Your task to perform on an android device: Open my contact list Image 0: 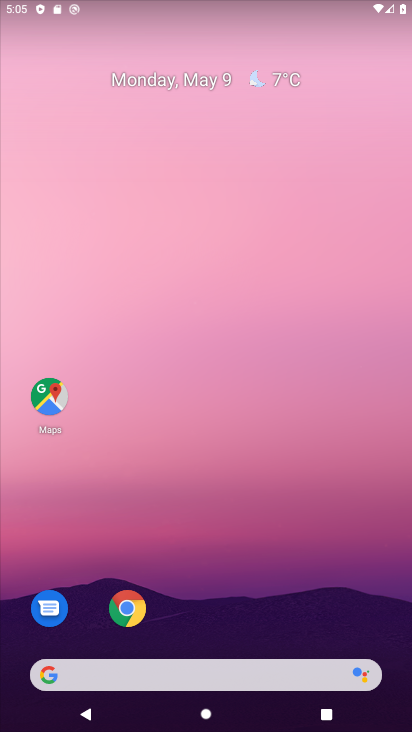
Step 0: drag from (305, 303) to (333, 3)
Your task to perform on an android device: Open my contact list Image 1: 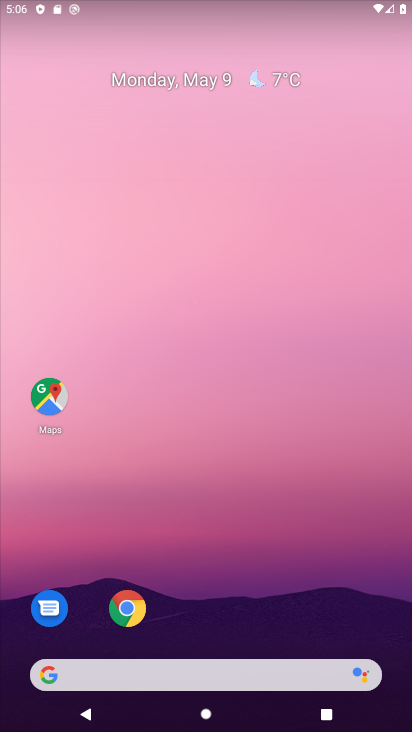
Step 1: drag from (225, 582) to (285, 44)
Your task to perform on an android device: Open my contact list Image 2: 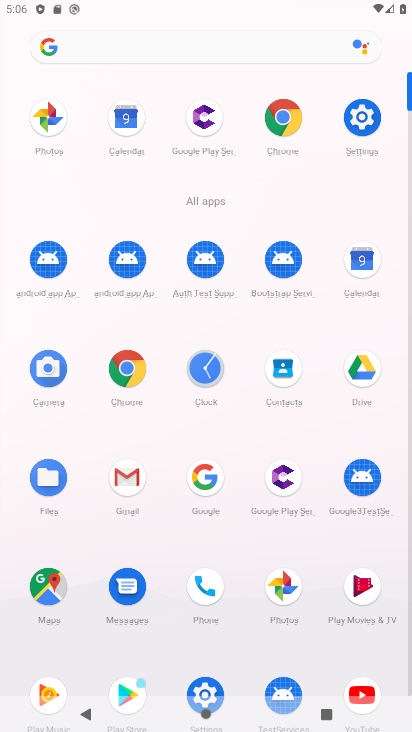
Step 2: click (289, 375)
Your task to perform on an android device: Open my contact list Image 3: 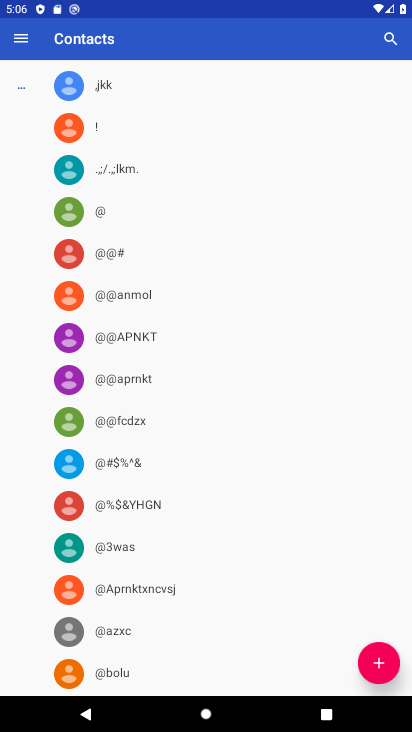
Step 3: task complete